Your task to perform on an android device: Open ESPN.com Image 0: 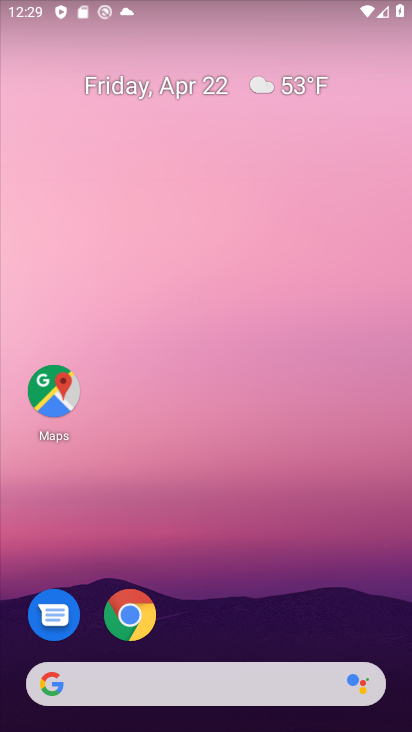
Step 0: click (131, 611)
Your task to perform on an android device: Open ESPN.com Image 1: 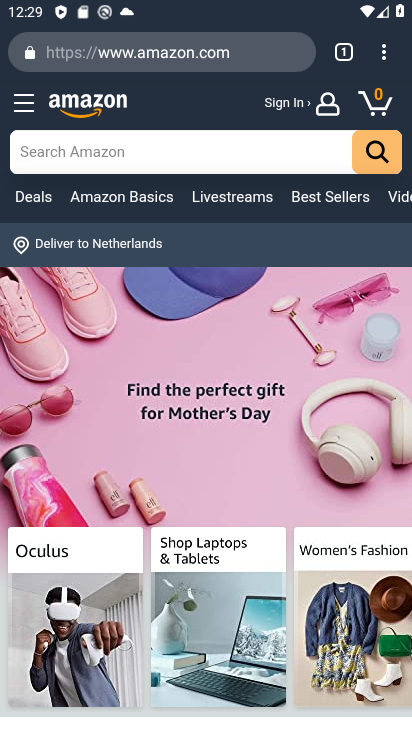
Step 1: click (170, 58)
Your task to perform on an android device: Open ESPN.com Image 2: 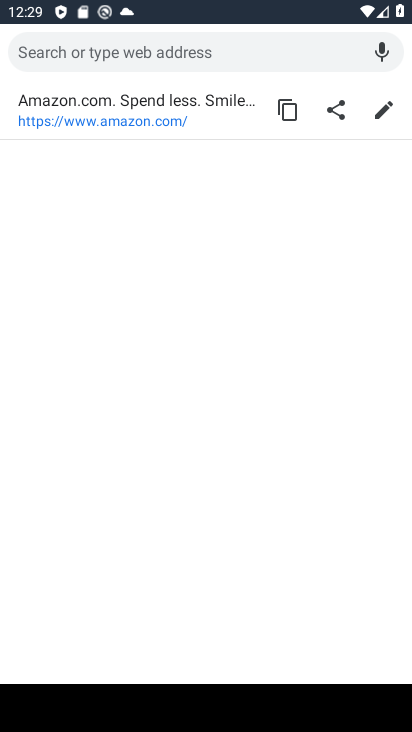
Step 2: type "espn.com"
Your task to perform on an android device: Open ESPN.com Image 3: 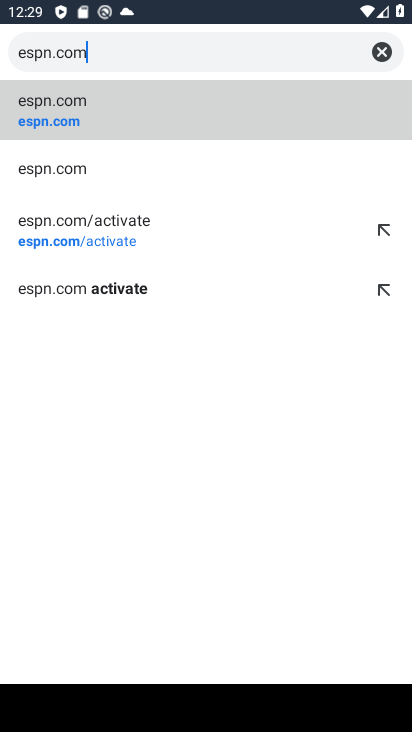
Step 3: click (36, 173)
Your task to perform on an android device: Open ESPN.com Image 4: 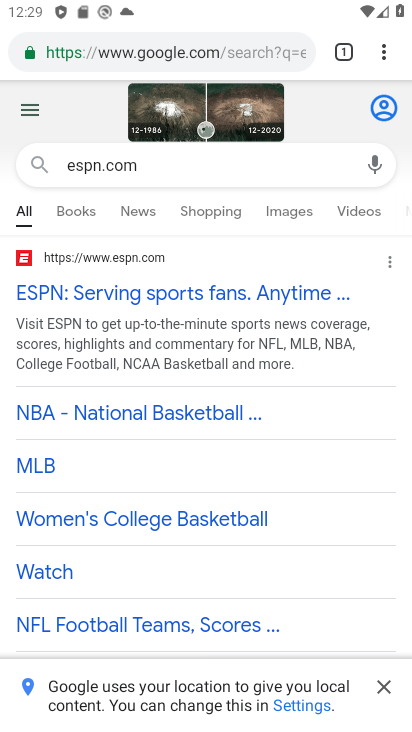
Step 4: click (55, 288)
Your task to perform on an android device: Open ESPN.com Image 5: 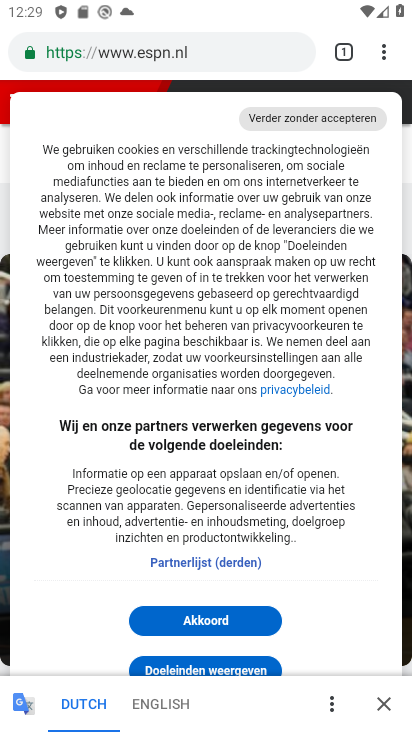
Step 5: task complete